Your task to perform on an android device: Search for vegetarian restaurants on Maps Image 0: 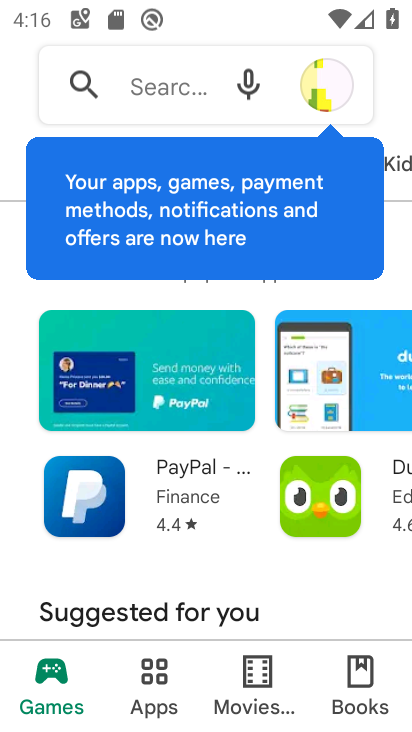
Step 0: press home button
Your task to perform on an android device: Search for vegetarian restaurants on Maps Image 1: 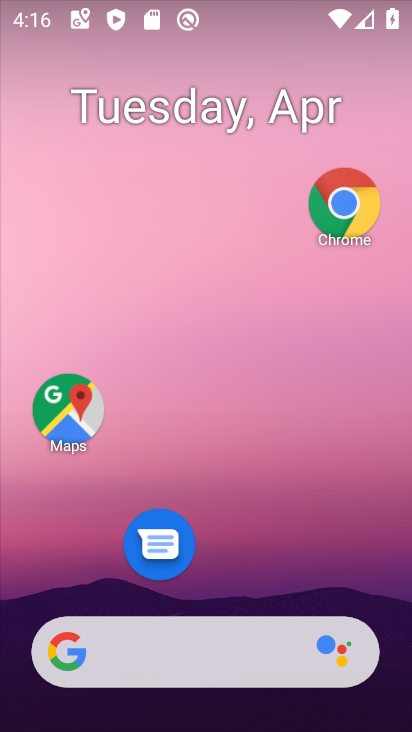
Step 1: click (73, 412)
Your task to perform on an android device: Search for vegetarian restaurants on Maps Image 2: 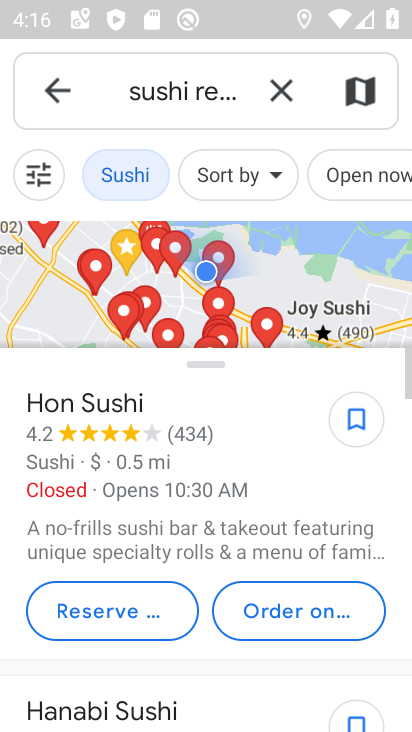
Step 2: click (51, 88)
Your task to perform on an android device: Search for vegetarian restaurants on Maps Image 3: 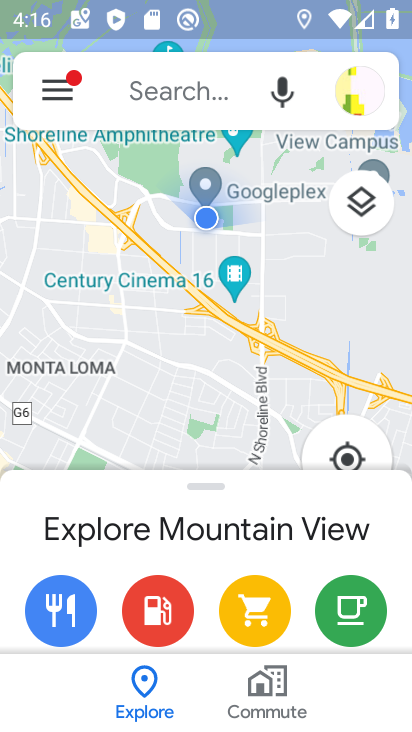
Step 3: click (155, 91)
Your task to perform on an android device: Search for vegetarian restaurants on Maps Image 4: 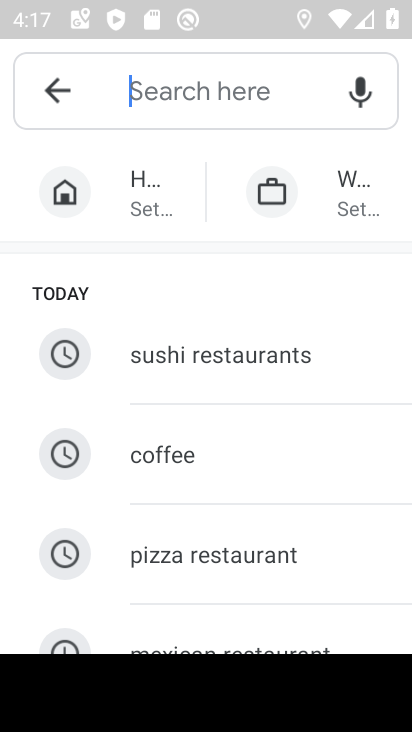
Step 4: type "vegetarian restaurants"
Your task to perform on an android device: Search for vegetarian restaurants on Maps Image 5: 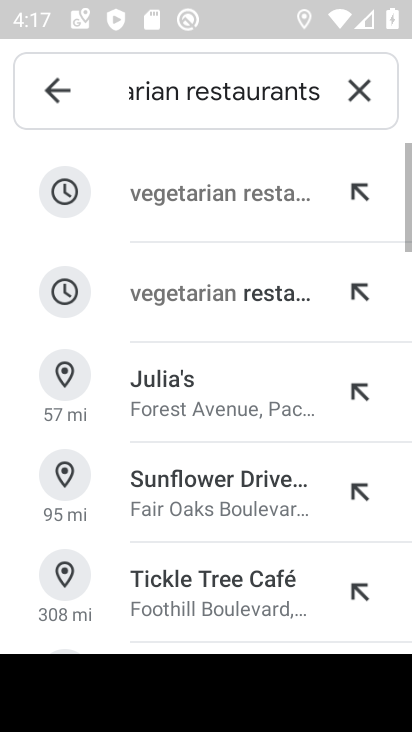
Step 5: click (217, 207)
Your task to perform on an android device: Search for vegetarian restaurants on Maps Image 6: 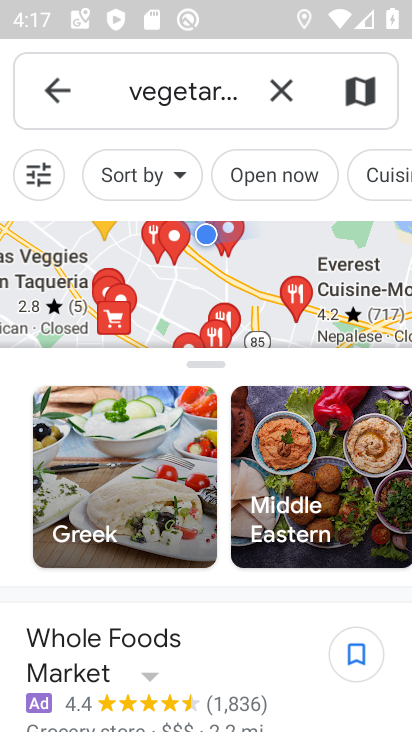
Step 6: task complete